Your task to perform on an android device: turn pop-ups on in chrome Image 0: 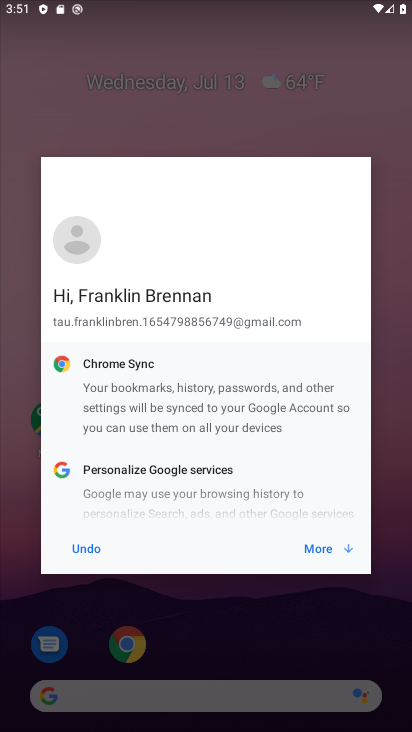
Step 0: press home button
Your task to perform on an android device: turn pop-ups on in chrome Image 1: 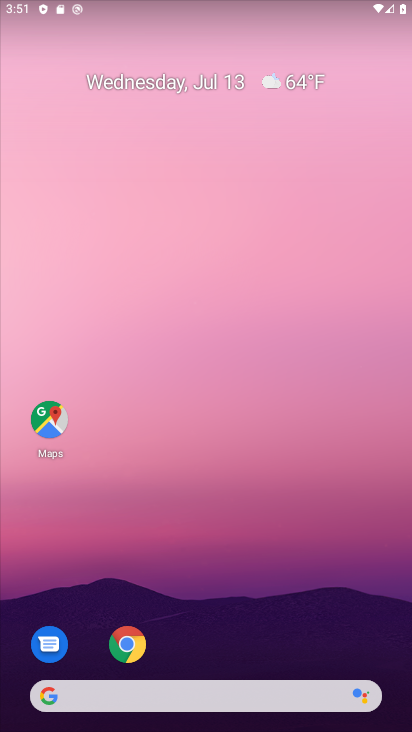
Step 1: click (125, 645)
Your task to perform on an android device: turn pop-ups on in chrome Image 2: 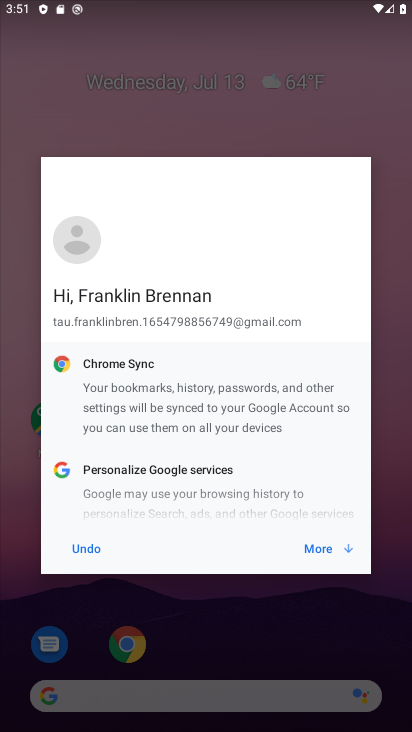
Step 2: click (325, 552)
Your task to perform on an android device: turn pop-ups on in chrome Image 3: 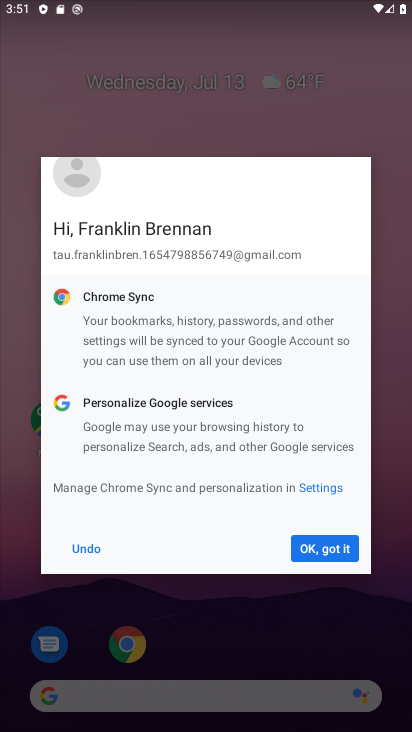
Step 3: click (334, 552)
Your task to perform on an android device: turn pop-ups on in chrome Image 4: 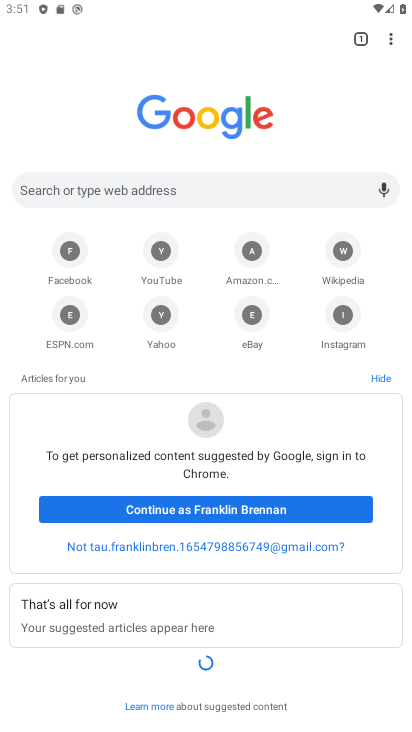
Step 4: click (392, 43)
Your task to perform on an android device: turn pop-ups on in chrome Image 5: 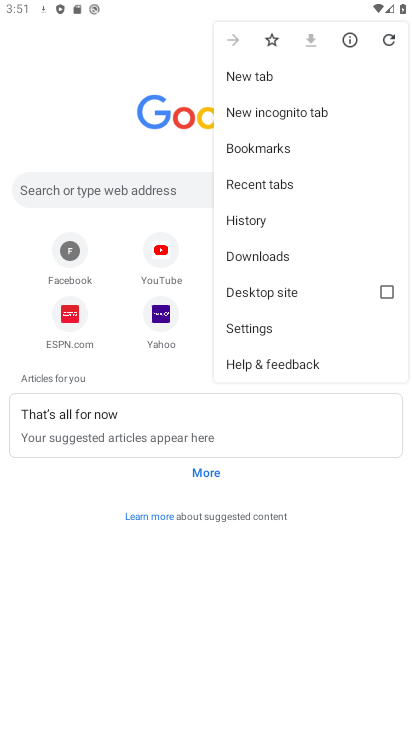
Step 5: click (258, 323)
Your task to perform on an android device: turn pop-ups on in chrome Image 6: 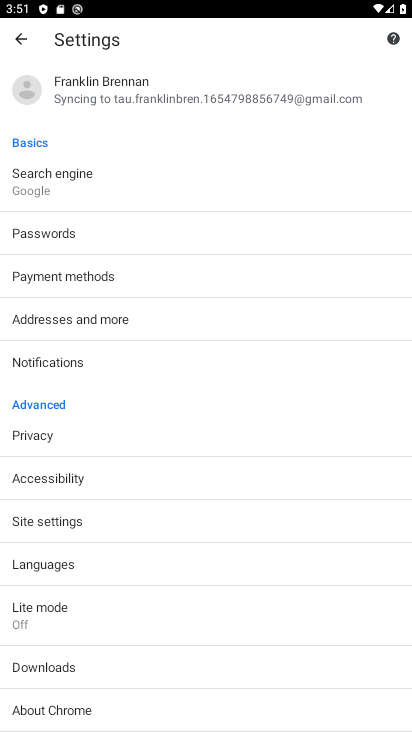
Step 6: click (47, 516)
Your task to perform on an android device: turn pop-ups on in chrome Image 7: 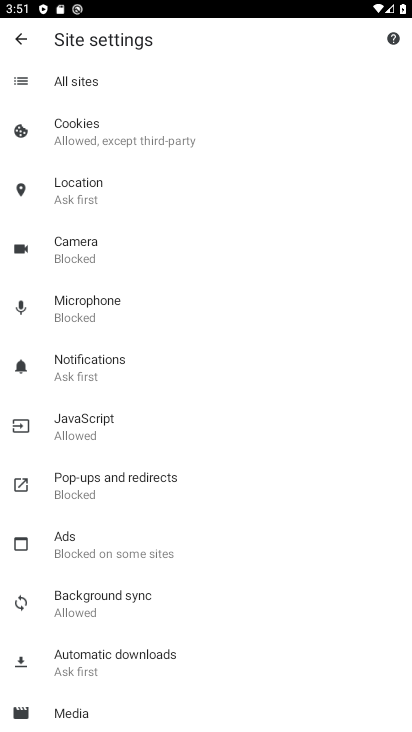
Step 7: click (90, 470)
Your task to perform on an android device: turn pop-ups on in chrome Image 8: 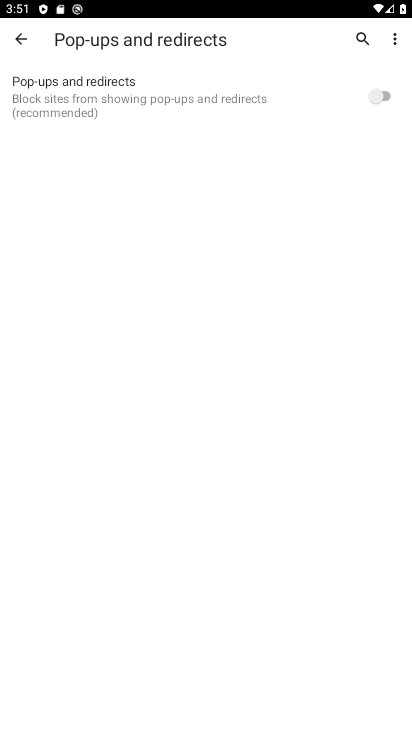
Step 8: click (372, 95)
Your task to perform on an android device: turn pop-ups on in chrome Image 9: 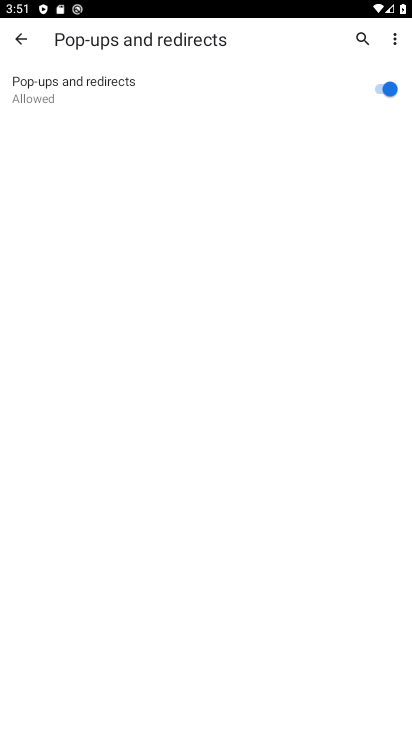
Step 9: task complete